Your task to perform on an android device: change alarm snooze length Image 0: 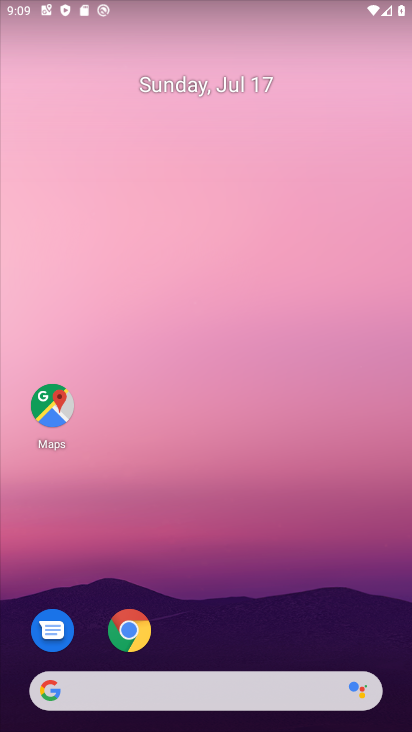
Step 0: click (244, 134)
Your task to perform on an android device: change alarm snooze length Image 1: 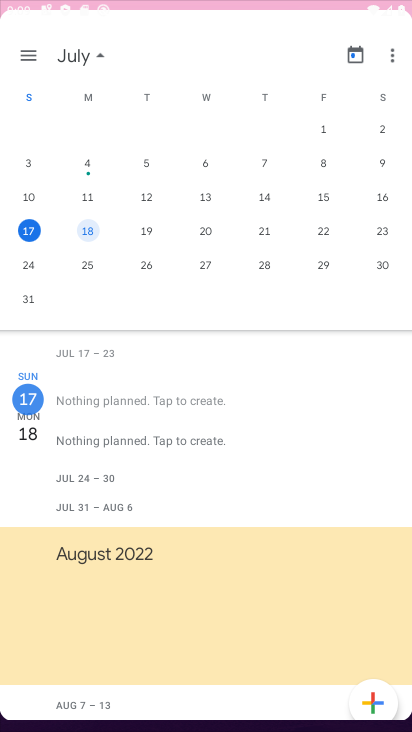
Step 1: drag from (177, 687) to (152, 19)
Your task to perform on an android device: change alarm snooze length Image 2: 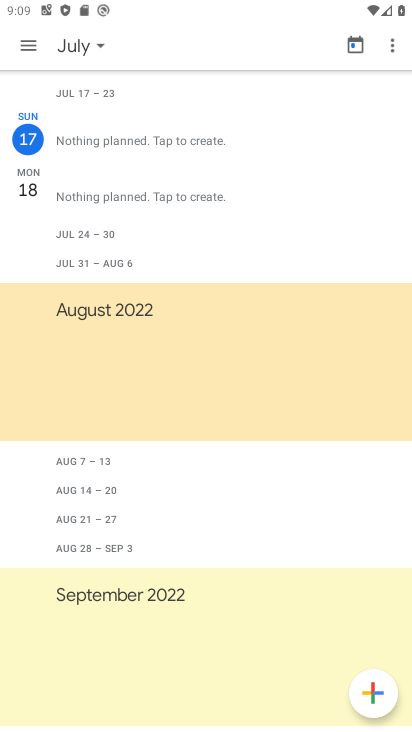
Step 2: press home button
Your task to perform on an android device: change alarm snooze length Image 3: 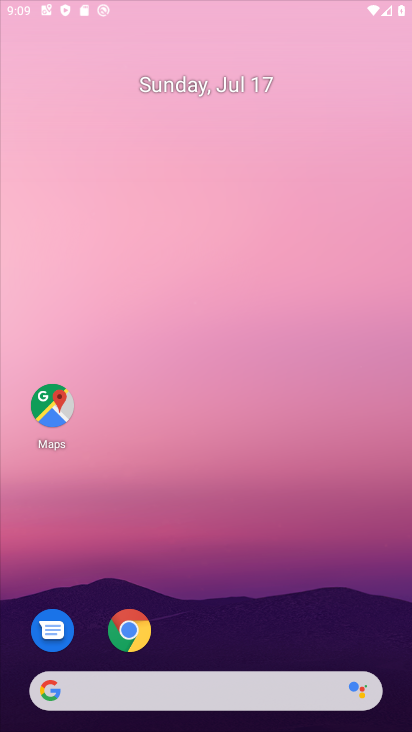
Step 3: drag from (254, 706) to (205, 59)
Your task to perform on an android device: change alarm snooze length Image 4: 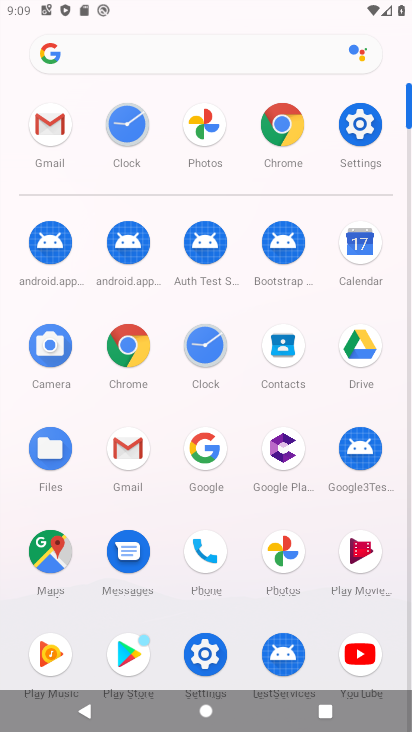
Step 4: click (210, 353)
Your task to perform on an android device: change alarm snooze length Image 5: 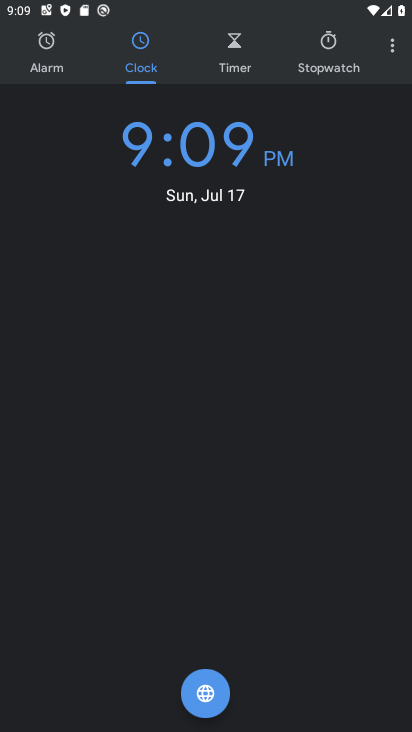
Step 5: click (392, 43)
Your task to perform on an android device: change alarm snooze length Image 6: 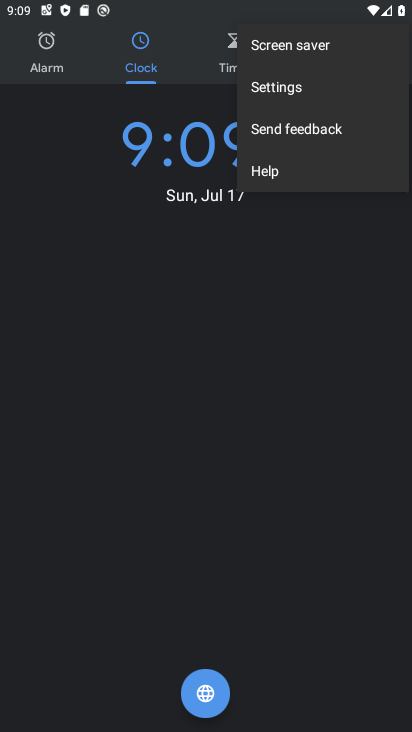
Step 6: click (285, 92)
Your task to perform on an android device: change alarm snooze length Image 7: 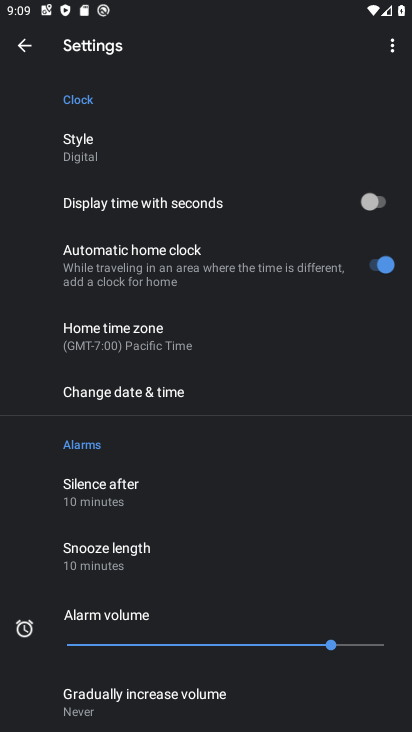
Step 7: click (147, 560)
Your task to perform on an android device: change alarm snooze length Image 8: 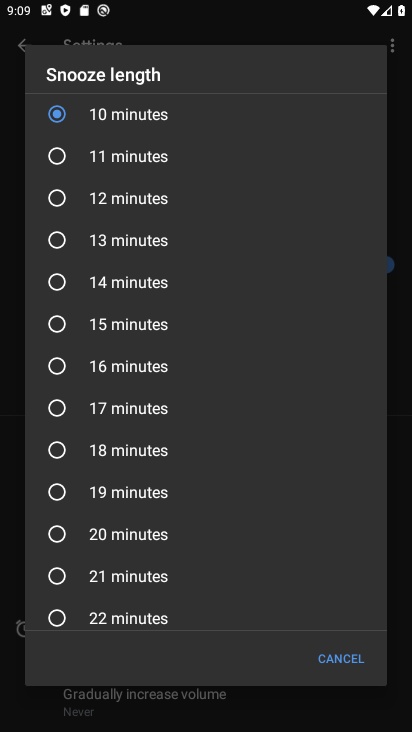
Step 8: click (61, 155)
Your task to perform on an android device: change alarm snooze length Image 9: 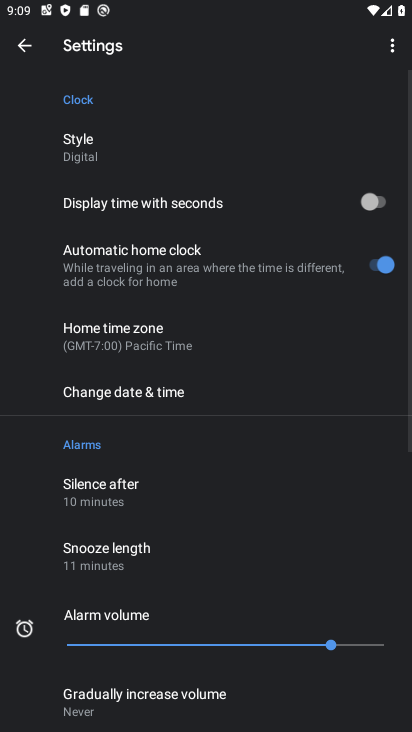
Step 9: task complete